Your task to perform on an android device: open wifi settings Image 0: 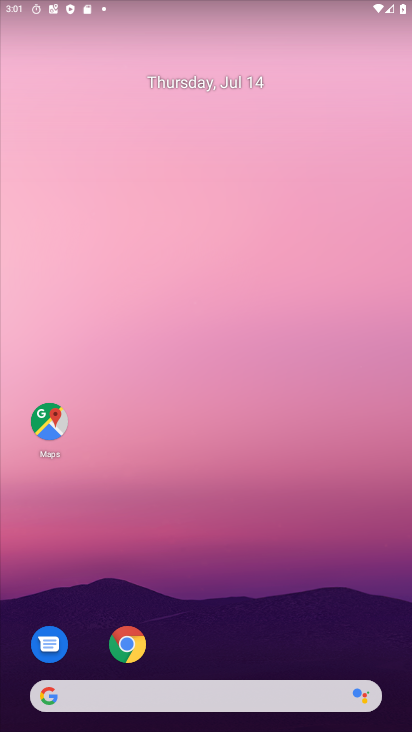
Step 0: drag from (16, 718) to (337, 6)
Your task to perform on an android device: open wifi settings Image 1: 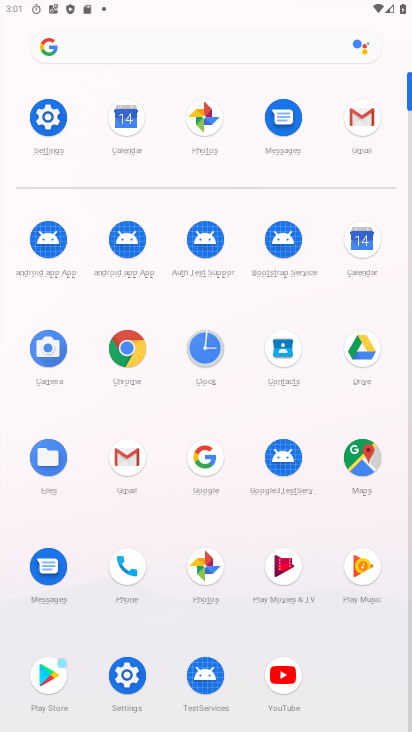
Step 1: click (111, 672)
Your task to perform on an android device: open wifi settings Image 2: 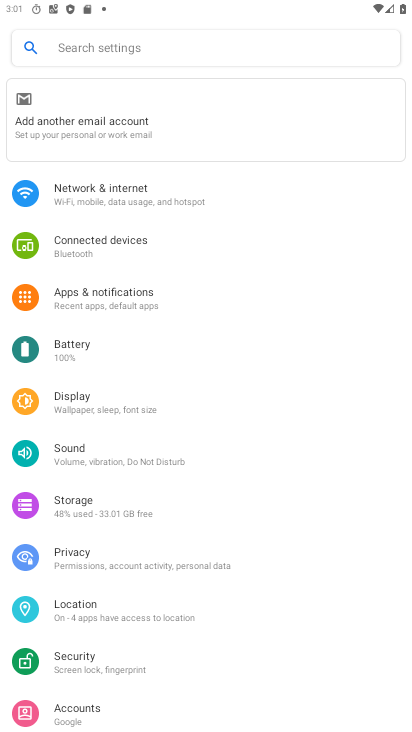
Step 2: click (129, 198)
Your task to perform on an android device: open wifi settings Image 3: 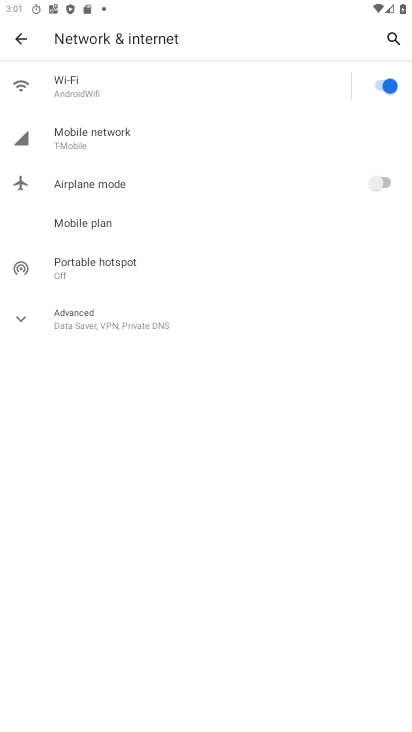
Step 3: click (106, 89)
Your task to perform on an android device: open wifi settings Image 4: 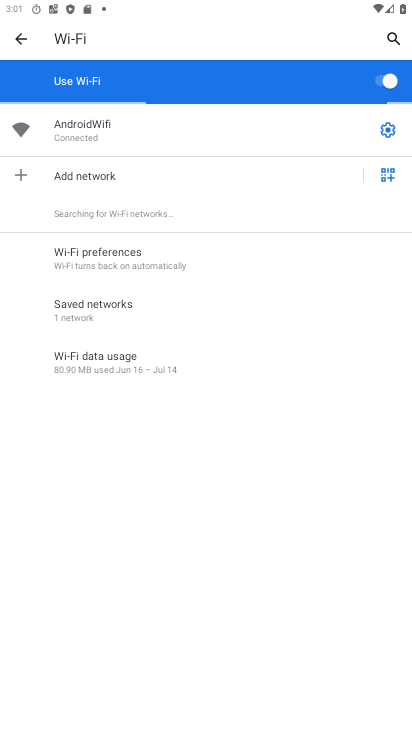
Step 4: task complete